Your task to perform on an android device: turn off sleep mode Image 0: 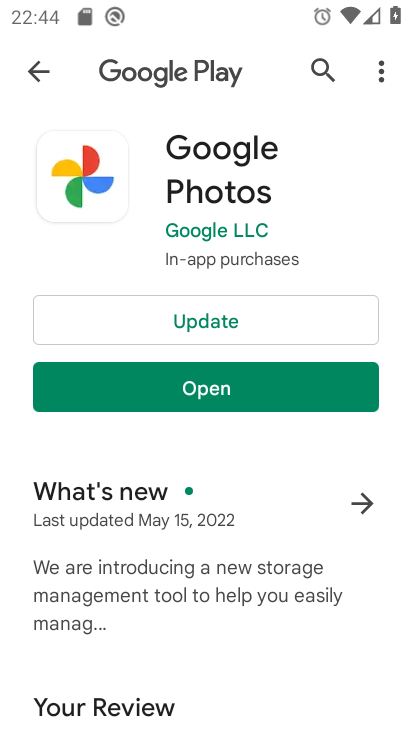
Step 0: press home button
Your task to perform on an android device: turn off sleep mode Image 1: 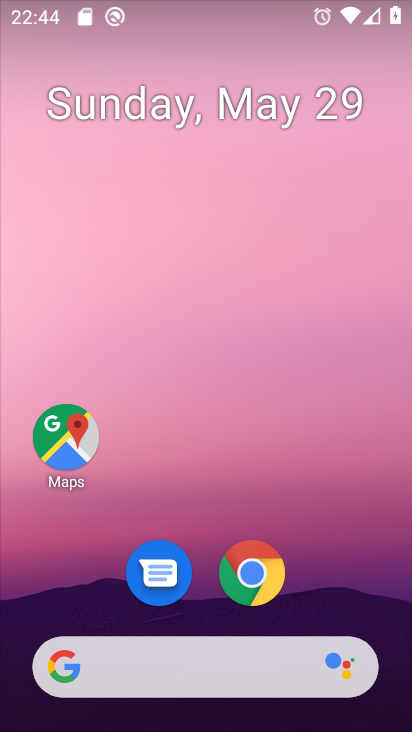
Step 1: drag from (227, 473) to (254, 10)
Your task to perform on an android device: turn off sleep mode Image 2: 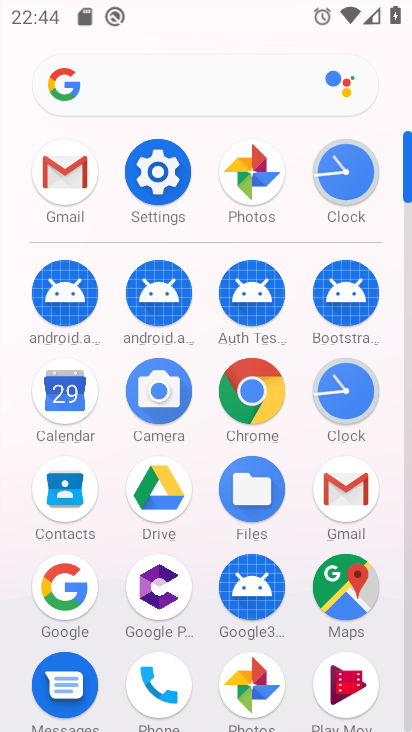
Step 2: click (157, 176)
Your task to perform on an android device: turn off sleep mode Image 3: 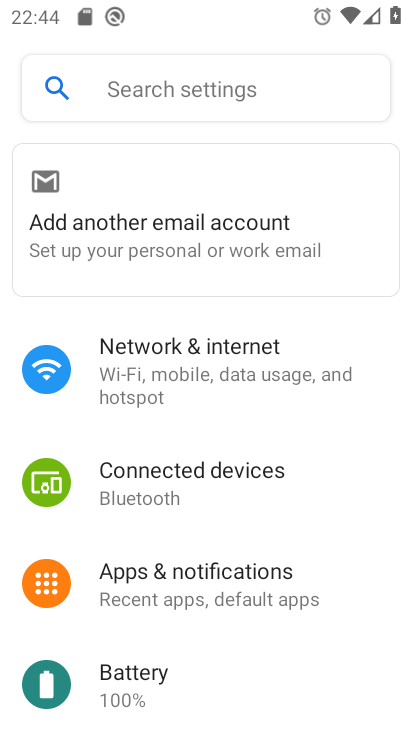
Step 3: drag from (240, 631) to (234, 235)
Your task to perform on an android device: turn off sleep mode Image 4: 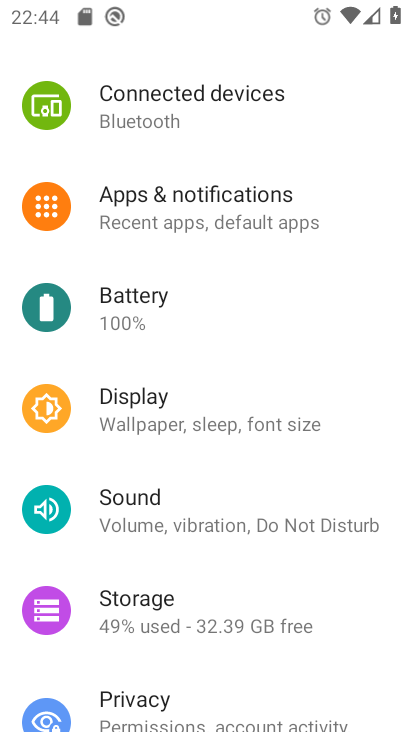
Step 4: click (256, 429)
Your task to perform on an android device: turn off sleep mode Image 5: 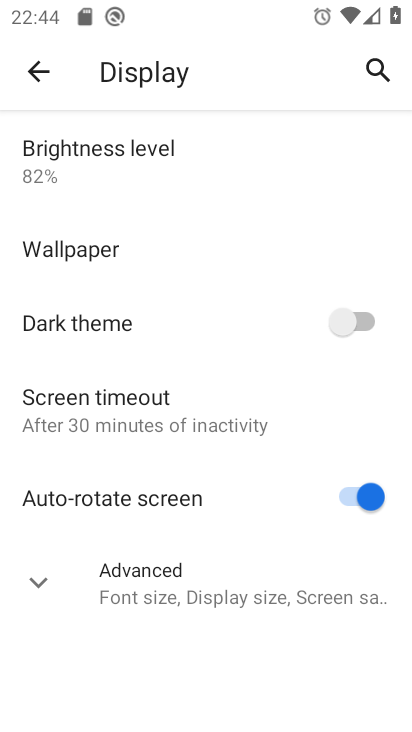
Step 5: click (39, 578)
Your task to perform on an android device: turn off sleep mode Image 6: 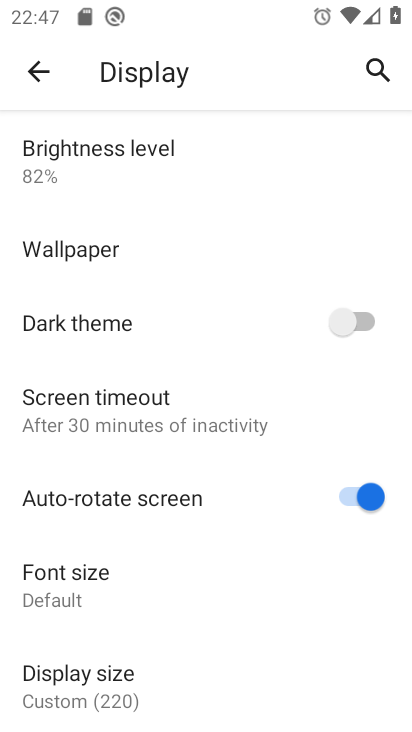
Step 6: task complete